Your task to perform on an android device: stop showing notifications on the lock screen Image 0: 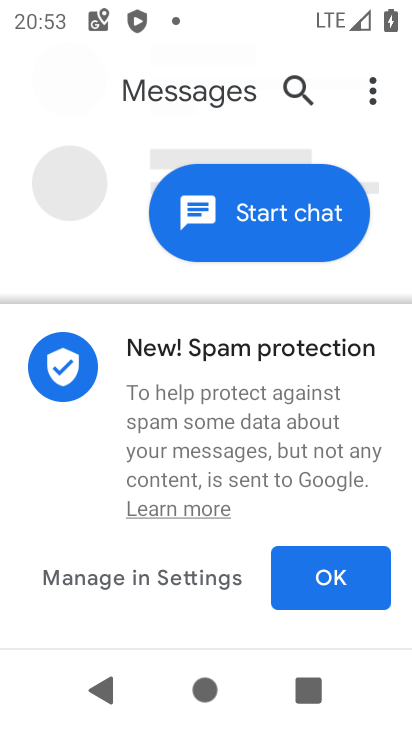
Step 0: press home button
Your task to perform on an android device: stop showing notifications on the lock screen Image 1: 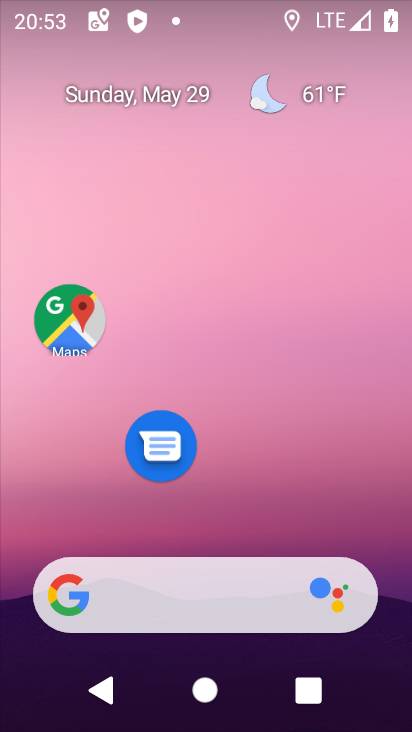
Step 1: drag from (226, 499) to (240, 196)
Your task to perform on an android device: stop showing notifications on the lock screen Image 2: 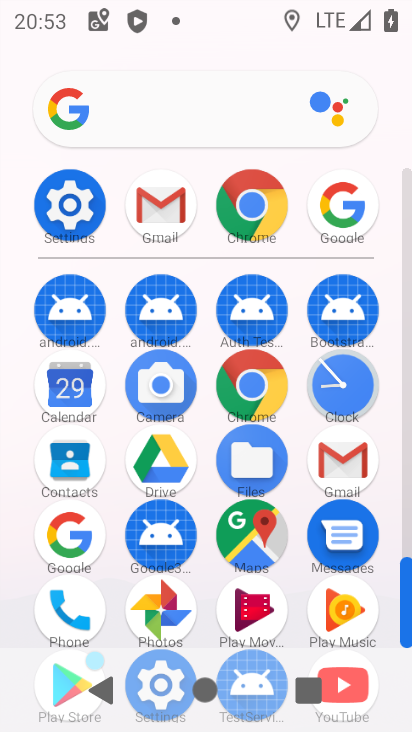
Step 2: click (76, 219)
Your task to perform on an android device: stop showing notifications on the lock screen Image 3: 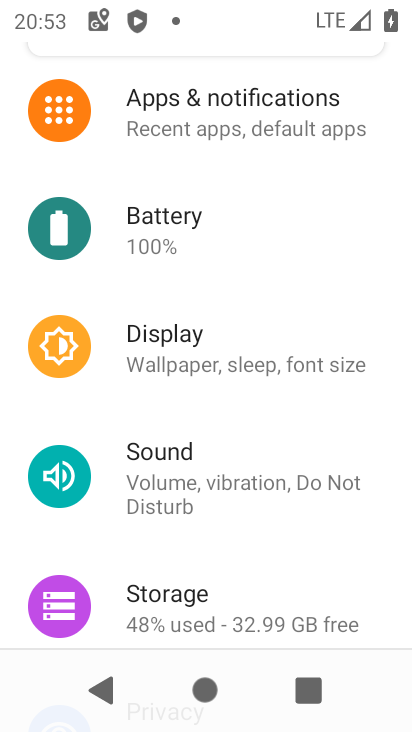
Step 3: click (219, 129)
Your task to perform on an android device: stop showing notifications on the lock screen Image 4: 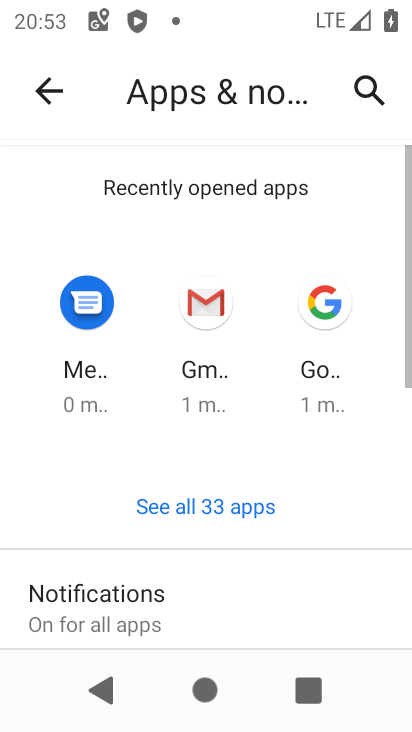
Step 4: drag from (232, 609) to (249, 217)
Your task to perform on an android device: stop showing notifications on the lock screen Image 5: 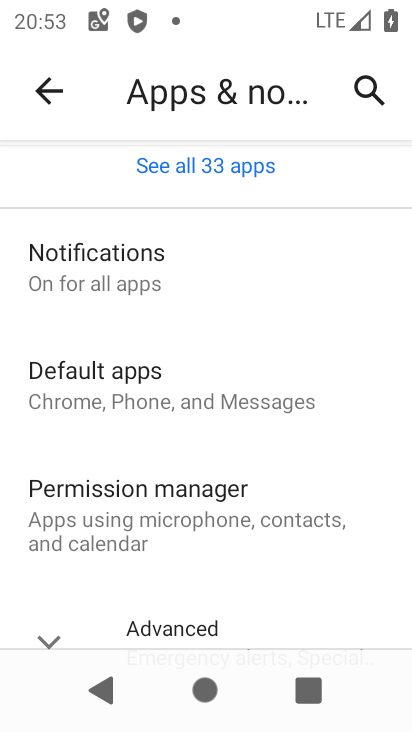
Step 5: click (140, 286)
Your task to perform on an android device: stop showing notifications on the lock screen Image 6: 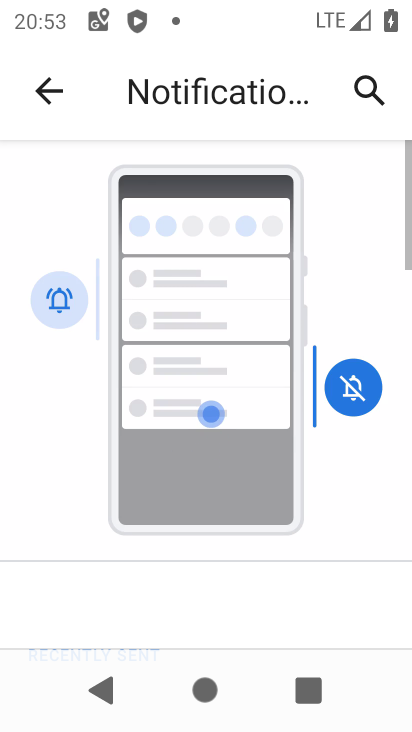
Step 6: drag from (199, 529) to (185, 154)
Your task to perform on an android device: stop showing notifications on the lock screen Image 7: 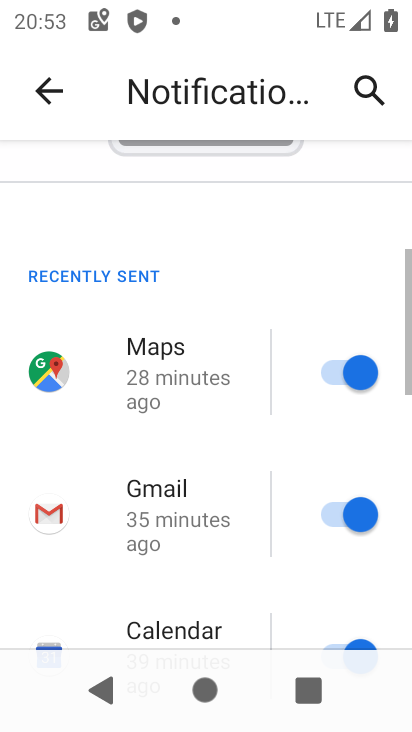
Step 7: drag from (199, 446) to (183, 203)
Your task to perform on an android device: stop showing notifications on the lock screen Image 8: 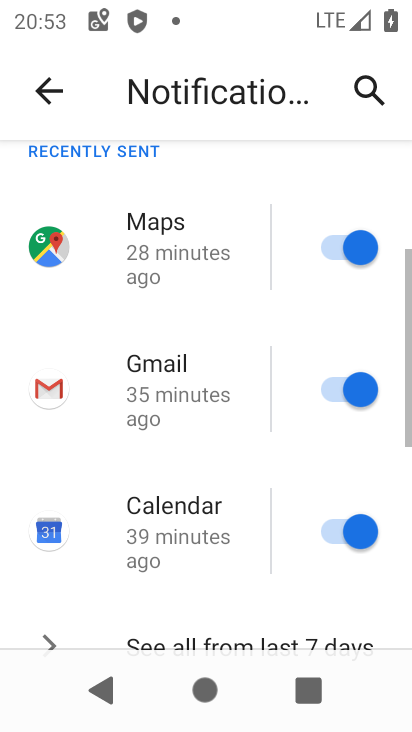
Step 8: drag from (179, 397) to (174, 263)
Your task to perform on an android device: stop showing notifications on the lock screen Image 9: 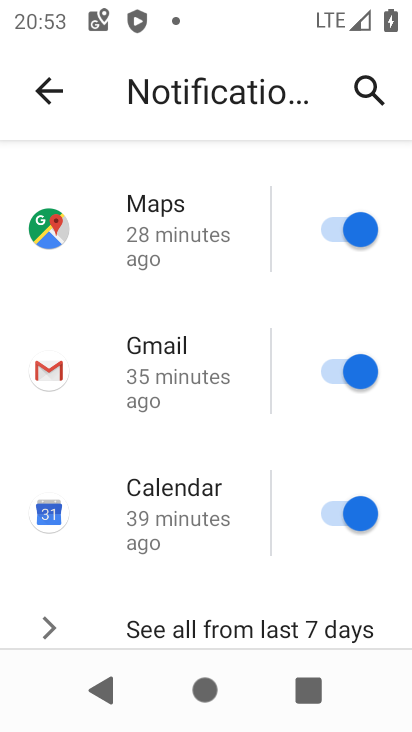
Step 9: drag from (210, 551) to (206, 129)
Your task to perform on an android device: stop showing notifications on the lock screen Image 10: 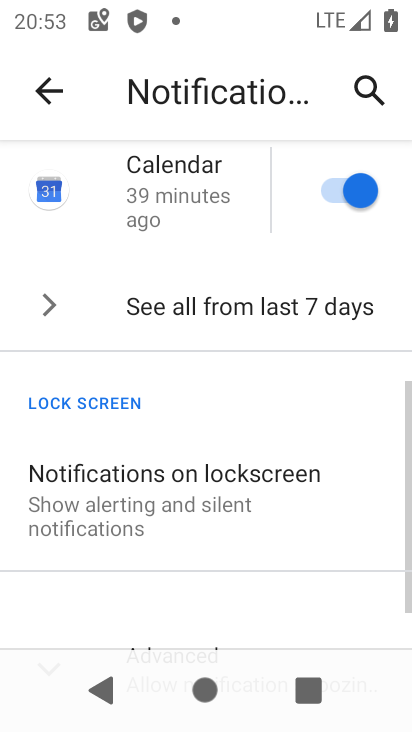
Step 10: click (230, 491)
Your task to perform on an android device: stop showing notifications on the lock screen Image 11: 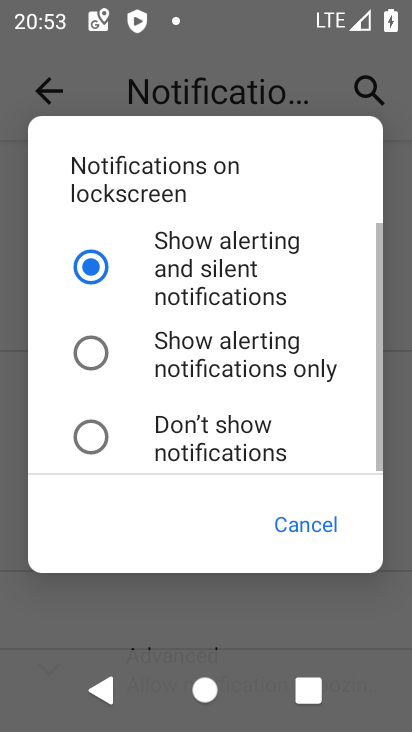
Step 11: click (201, 442)
Your task to perform on an android device: stop showing notifications on the lock screen Image 12: 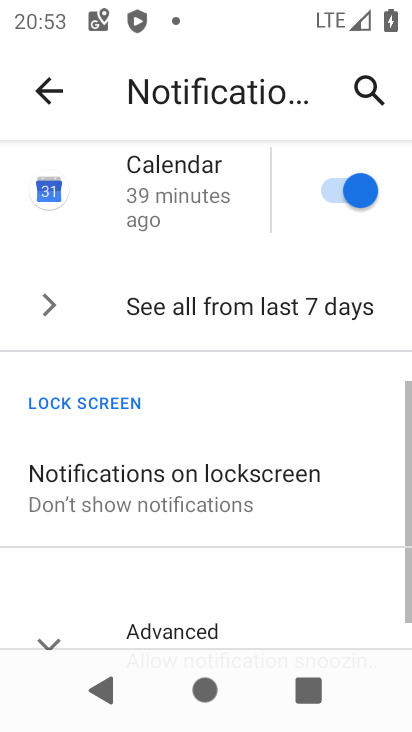
Step 12: task complete